Your task to perform on an android device: delete a single message in the gmail app Image 0: 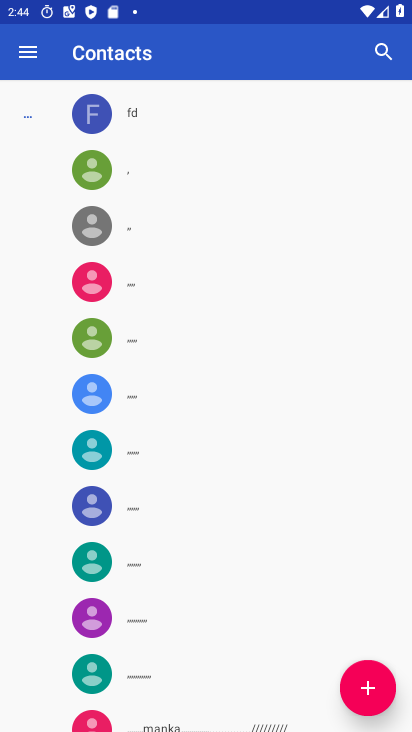
Step 0: press home button
Your task to perform on an android device: delete a single message in the gmail app Image 1: 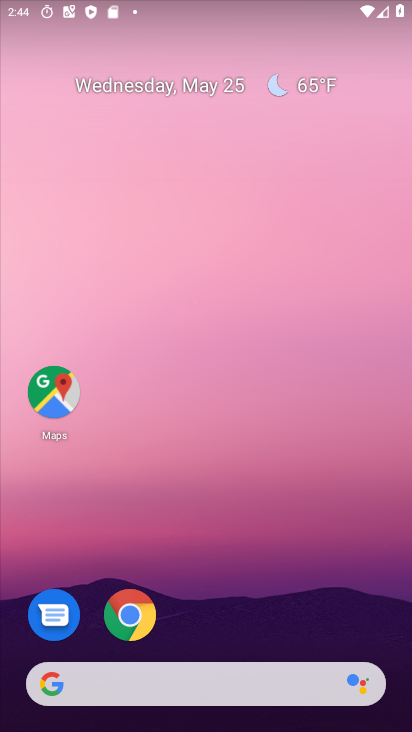
Step 1: drag from (391, 709) to (358, 103)
Your task to perform on an android device: delete a single message in the gmail app Image 2: 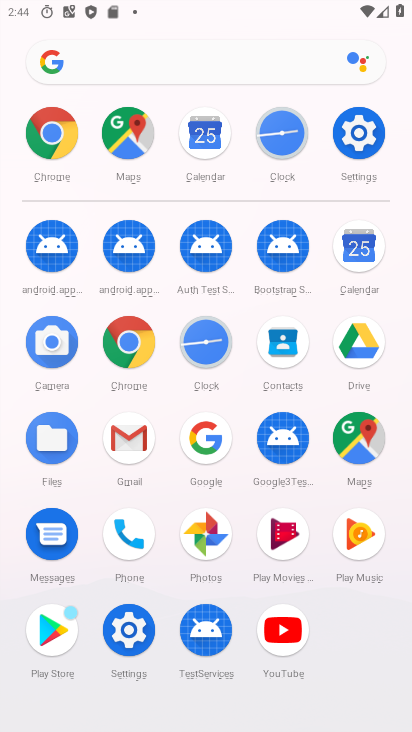
Step 2: click (113, 445)
Your task to perform on an android device: delete a single message in the gmail app Image 3: 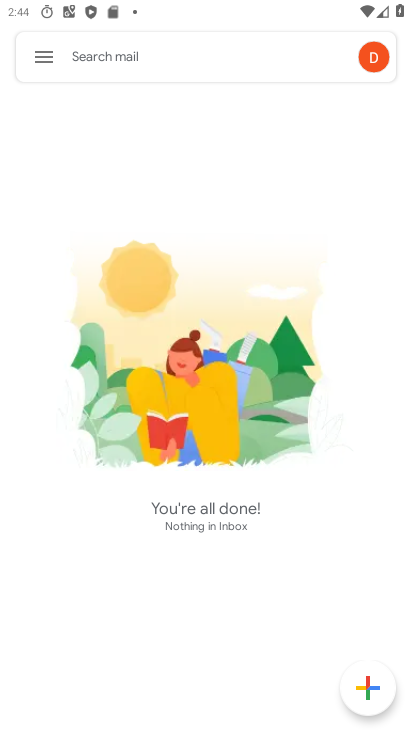
Step 3: click (54, 62)
Your task to perform on an android device: delete a single message in the gmail app Image 4: 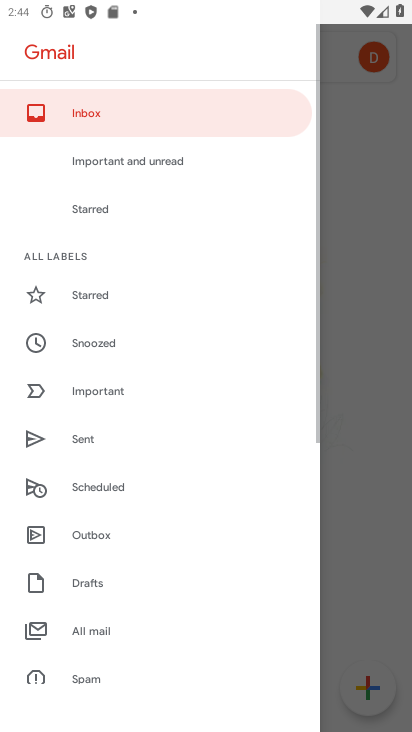
Step 4: click (105, 114)
Your task to perform on an android device: delete a single message in the gmail app Image 5: 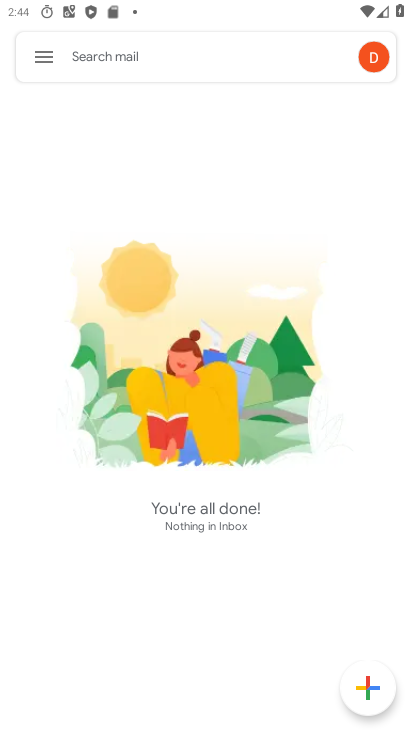
Step 5: task complete